Your task to perform on an android device: turn on airplane mode Image 0: 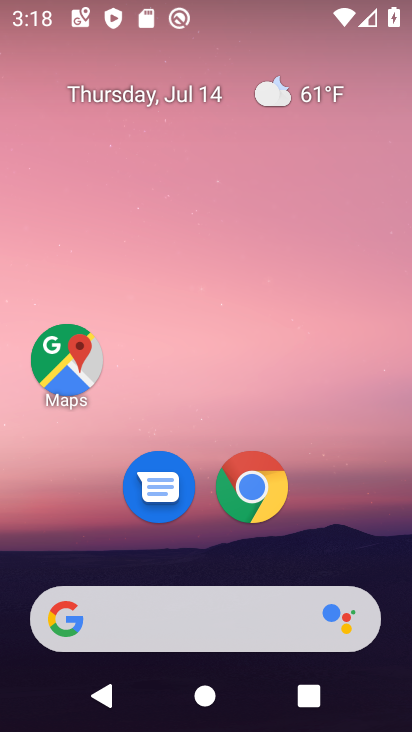
Step 0: drag from (351, 105) to (294, 495)
Your task to perform on an android device: turn on airplane mode Image 1: 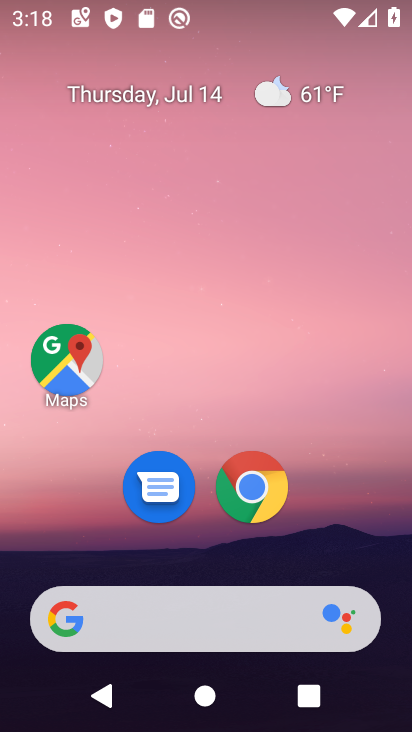
Step 1: drag from (259, 13) to (222, 597)
Your task to perform on an android device: turn on airplane mode Image 2: 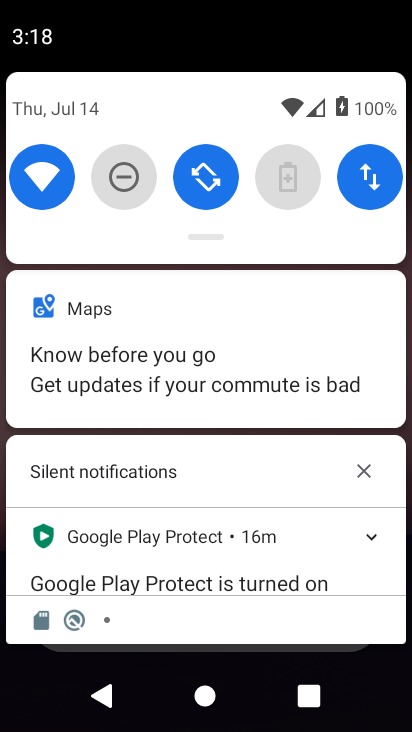
Step 2: drag from (192, 225) to (168, 681)
Your task to perform on an android device: turn on airplane mode Image 3: 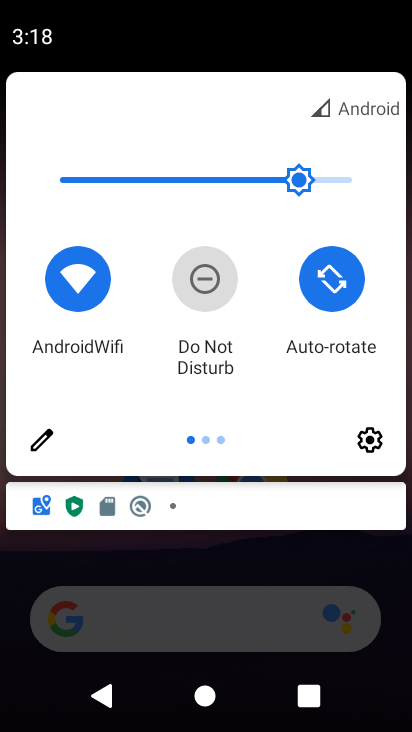
Step 3: drag from (362, 259) to (20, 266)
Your task to perform on an android device: turn on airplane mode Image 4: 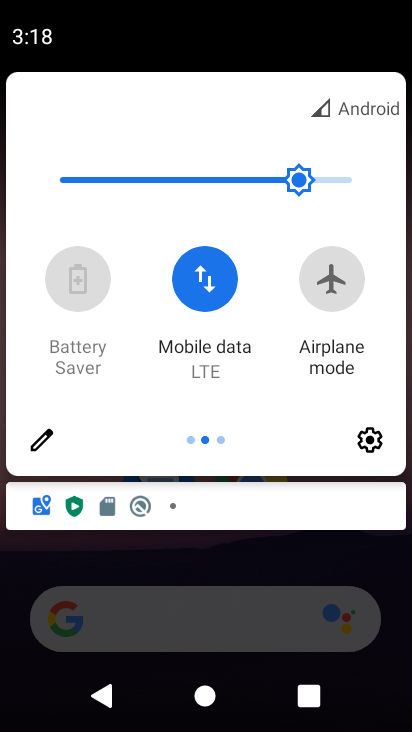
Step 4: click (335, 276)
Your task to perform on an android device: turn on airplane mode Image 5: 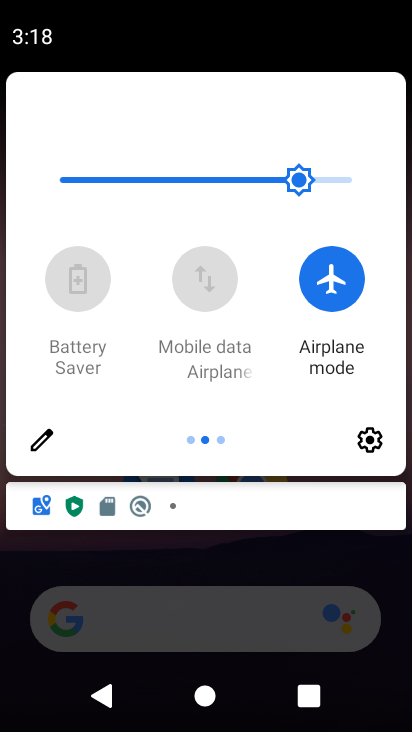
Step 5: task complete